Your task to perform on an android device: Go to Android settings Image 0: 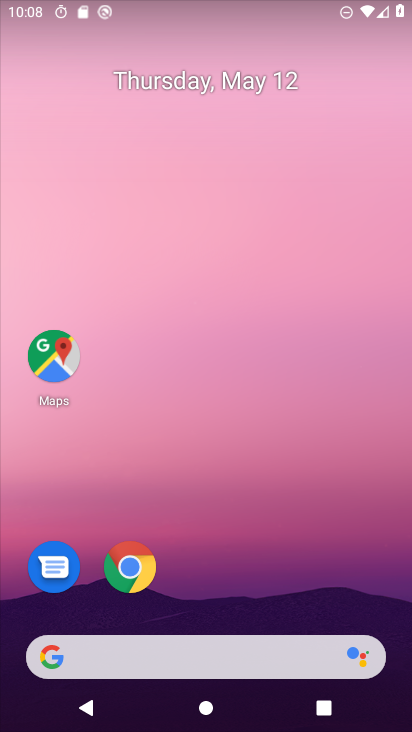
Step 0: drag from (269, 650) to (269, 153)
Your task to perform on an android device: Go to Android settings Image 1: 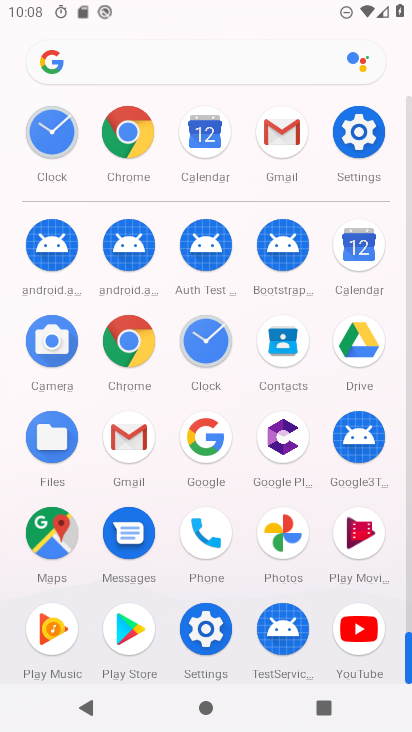
Step 1: click (367, 157)
Your task to perform on an android device: Go to Android settings Image 2: 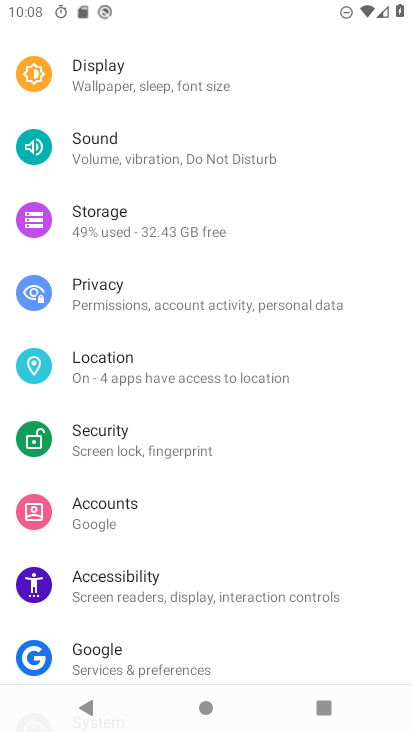
Step 2: drag from (169, 608) to (319, 32)
Your task to perform on an android device: Go to Android settings Image 3: 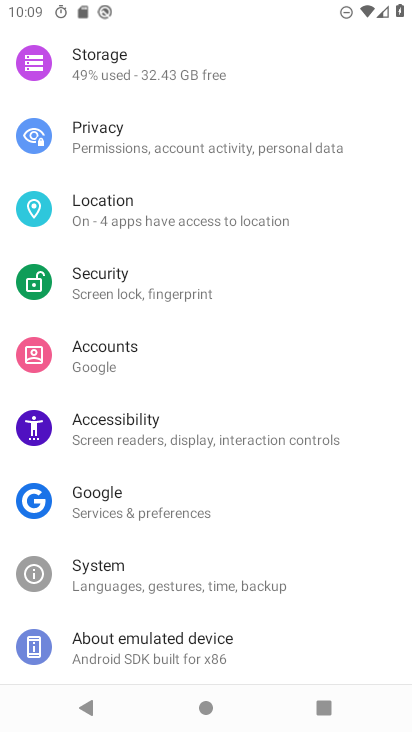
Step 3: click (219, 645)
Your task to perform on an android device: Go to Android settings Image 4: 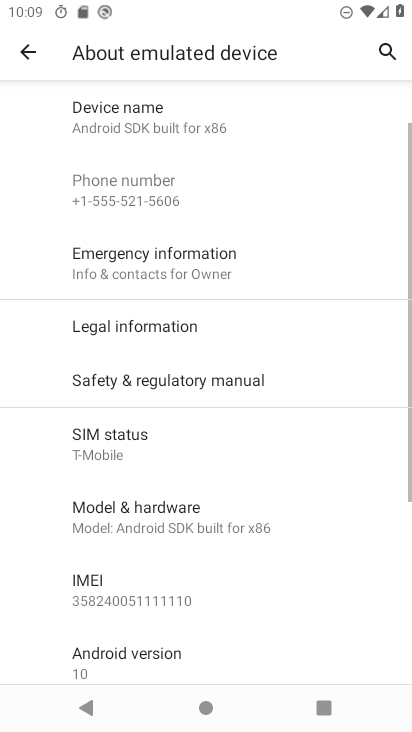
Step 4: drag from (201, 433) to (251, 136)
Your task to perform on an android device: Go to Android settings Image 5: 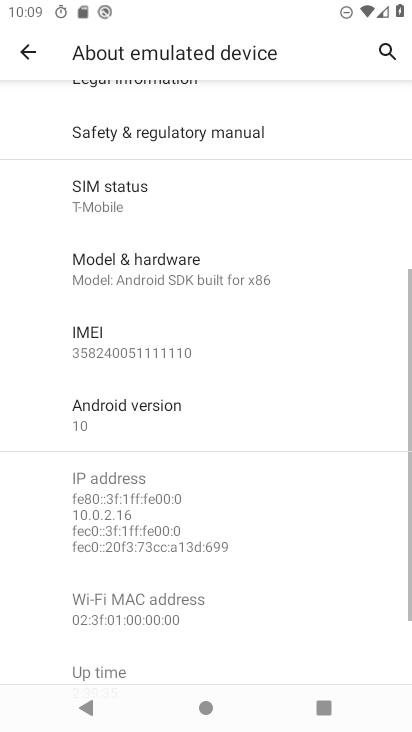
Step 5: click (174, 403)
Your task to perform on an android device: Go to Android settings Image 6: 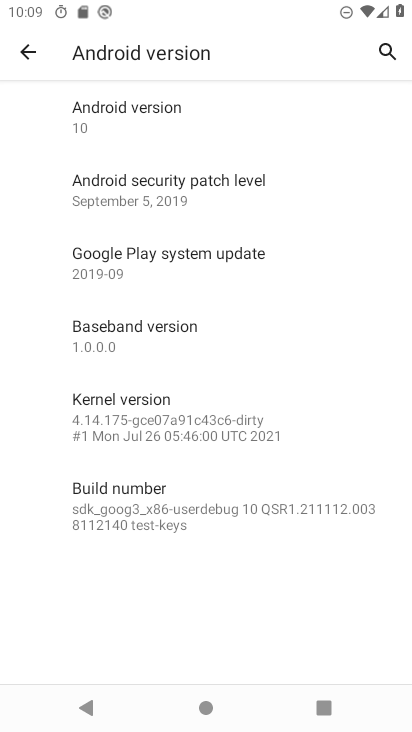
Step 6: task complete